Your task to perform on an android device: turn pop-ups on in chrome Image 0: 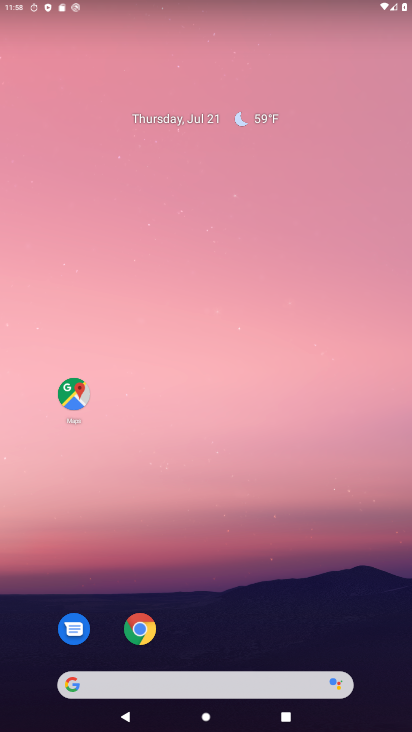
Step 0: drag from (203, 680) to (163, 212)
Your task to perform on an android device: turn pop-ups on in chrome Image 1: 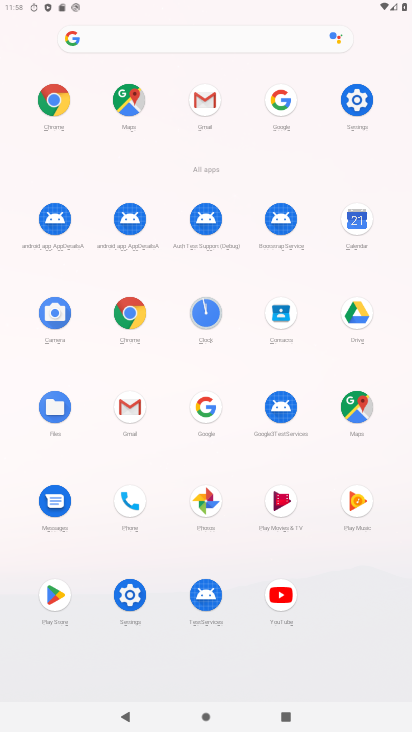
Step 1: click (142, 318)
Your task to perform on an android device: turn pop-ups on in chrome Image 2: 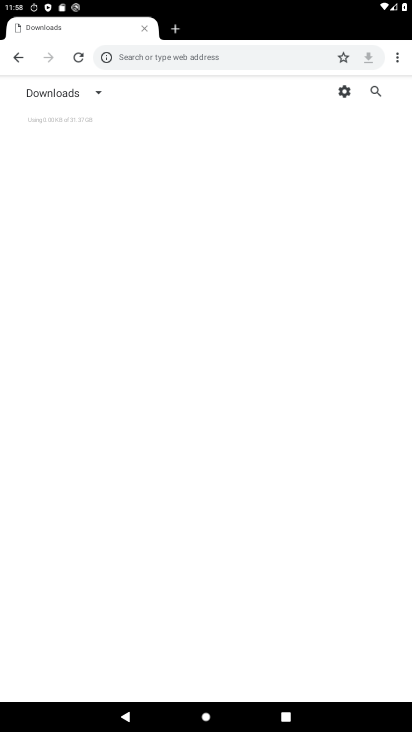
Step 2: press back button
Your task to perform on an android device: turn pop-ups on in chrome Image 3: 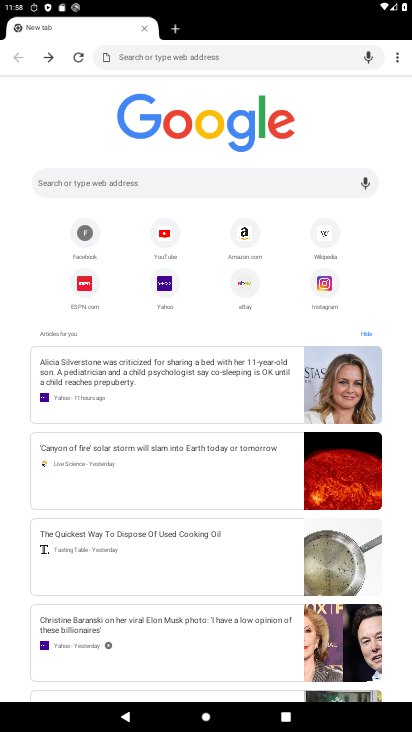
Step 3: drag from (395, 55) to (265, 276)
Your task to perform on an android device: turn pop-ups on in chrome Image 4: 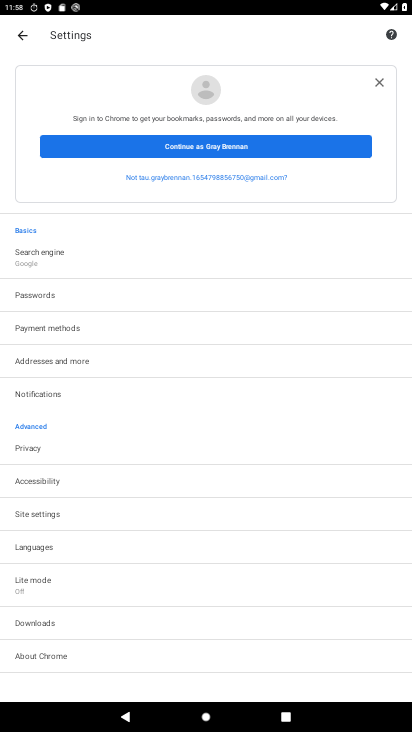
Step 4: drag from (122, 544) to (169, 308)
Your task to perform on an android device: turn pop-ups on in chrome Image 5: 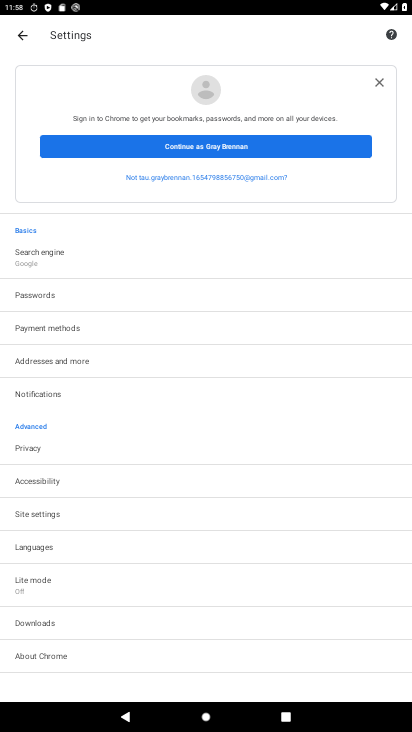
Step 5: click (69, 518)
Your task to perform on an android device: turn pop-ups on in chrome Image 6: 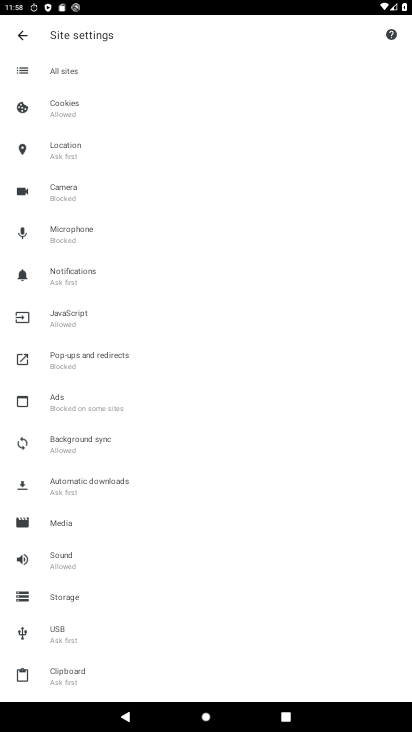
Step 6: click (106, 358)
Your task to perform on an android device: turn pop-ups on in chrome Image 7: 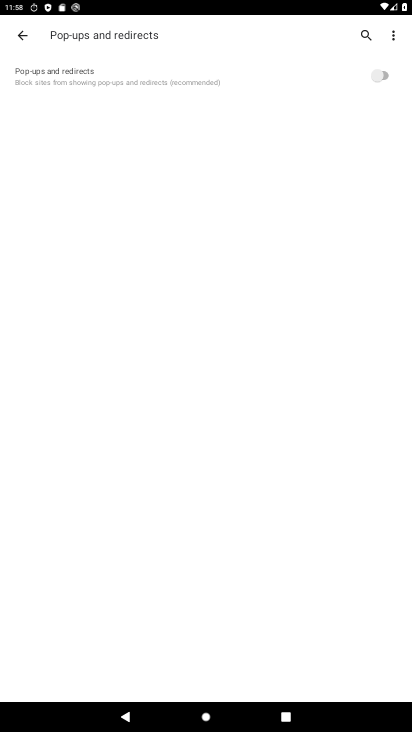
Step 7: click (381, 75)
Your task to perform on an android device: turn pop-ups on in chrome Image 8: 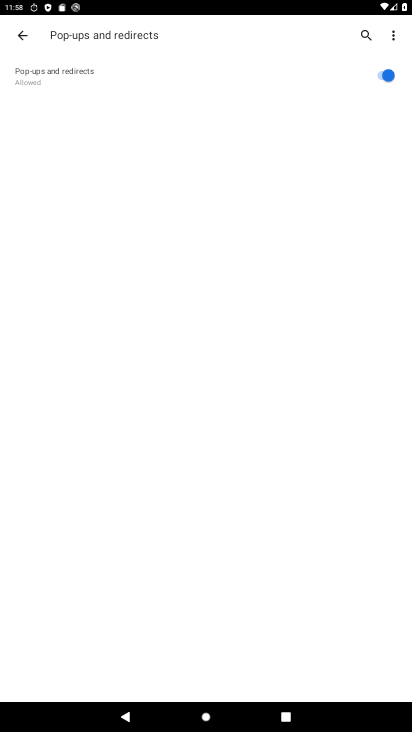
Step 8: task complete